Your task to perform on an android device: Add razer blade to the cart on costco Image 0: 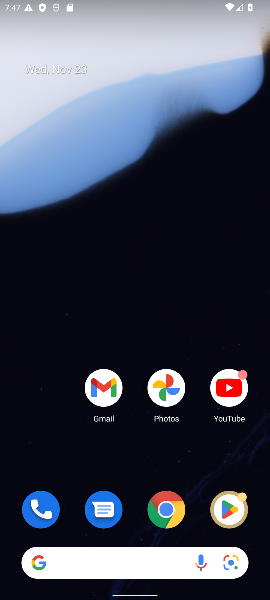
Step 0: click (168, 525)
Your task to perform on an android device: Add razer blade to the cart on costco Image 1: 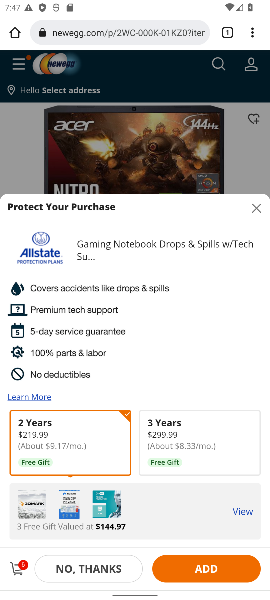
Step 1: click (116, 36)
Your task to perform on an android device: Add razer blade to the cart on costco Image 2: 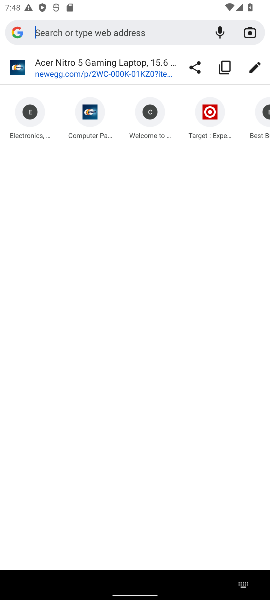
Step 2: type "costco"
Your task to perform on an android device: Add razer blade to the cart on costco Image 3: 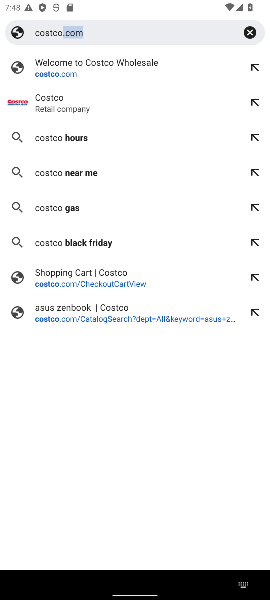
Step 3: click (137, 72)
Your task to perform on an android device: Add razer blade to the cart on costco Image 4: 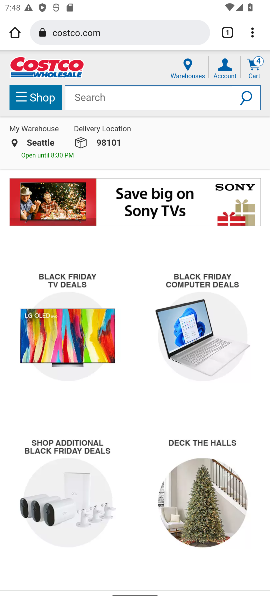
Step 4: click (154, 94)
Your task to perform on an android device: Add razer blade to the cart on costco Image 5: 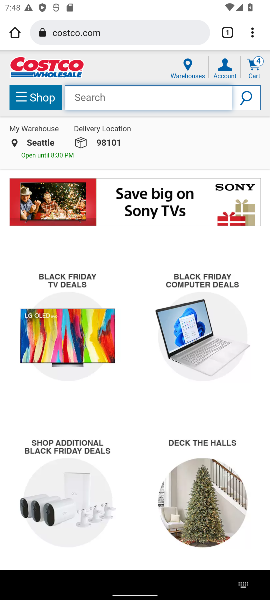
Step 5: click (93, 97)
Your task to perform on an android device: Add razer blade to the cart on costco Image 6: 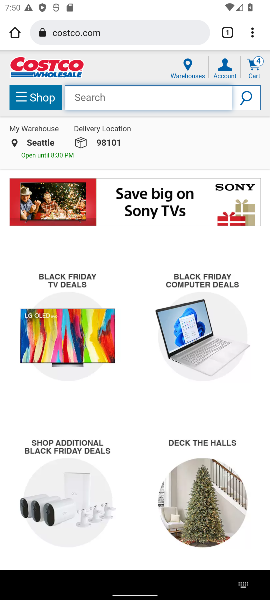
Step 6: click (115, 99)
Your task to perform on an android device: Add razer blade to the cart on costco Image 7: 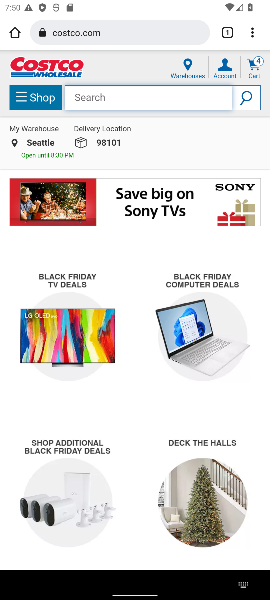
Step 7: click (141, 95)
Your task to perform on an android device: Add razer blade to the cart on costco Image 8: 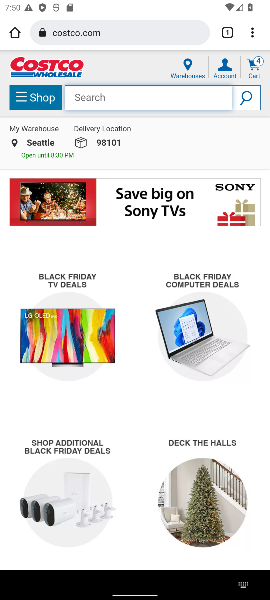
Step 8: type "razer blade"
Your task to perform on an android device: Add razer blade to the cart on costco Image 9: 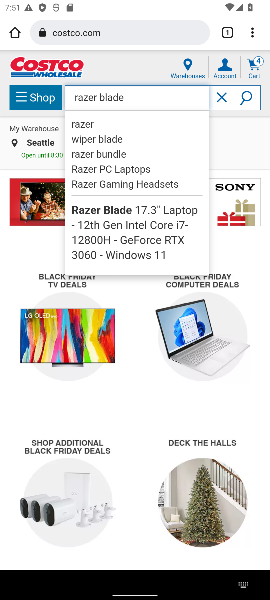
Step 9: press enter
Your task to perform on an android device: Add razer blade to the cart on costco Image 10: 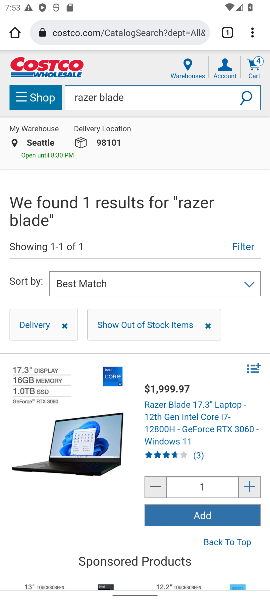
Step 10: click (222, 517)
Your task to perform on an android device: Add razer blade to the cart on costco Image 11: 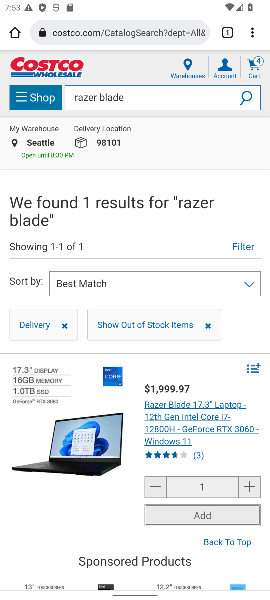
Step 11: task complete